Your task to perform on an android device: Go to network settings Image 0: 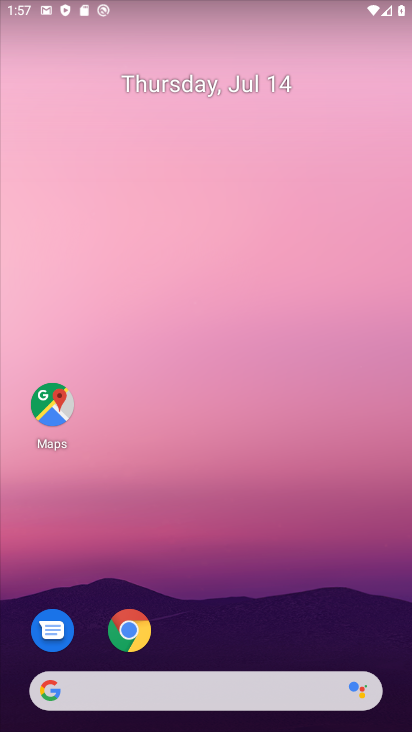
Step 0: drag from (219, 657) to (248, 300)
Your task to perform on an android device: Go to network settings Image 1: 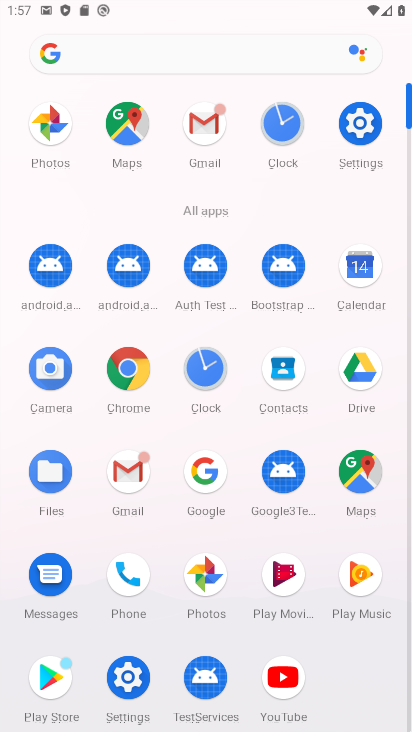
Step 1: click (135, 691)
Your task to perform on an android device: Go to network settings Image 2: 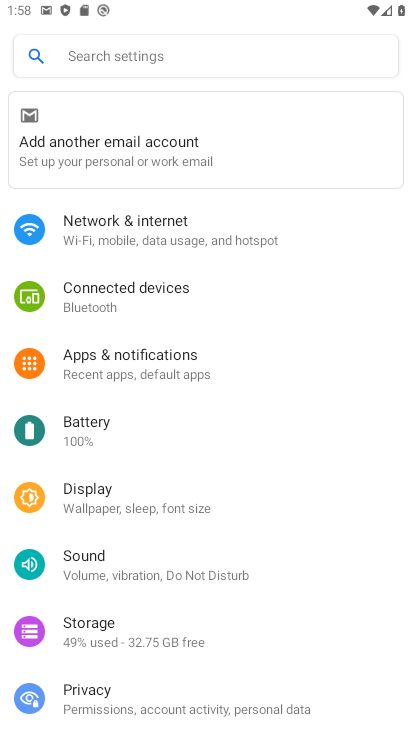
Step 2: click (160, 232)
Your task to perform on an android device: Go to network settings Image 3: 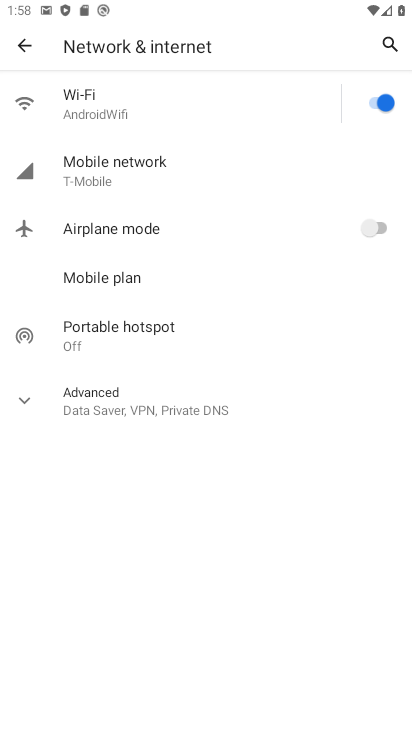
Step 3: click (162, 163)
Your task to perform on an android device: Go to network settings Image 4: 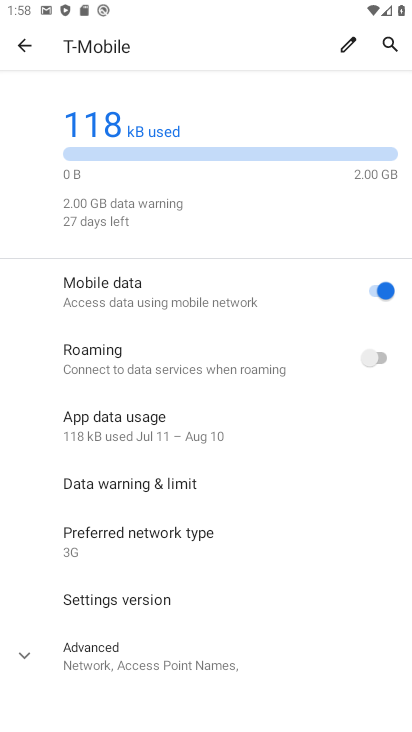
Step 4: task complete